Your task to perform on an android device: check android version Image 0: 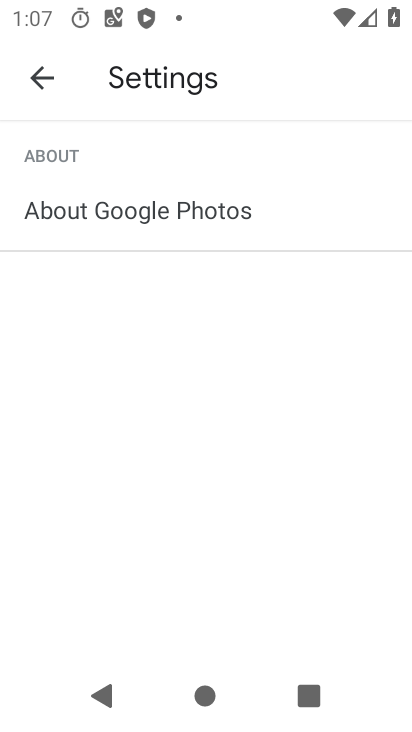
Step 0: press back button
Your task to perform on an android device: check android version Image 1: 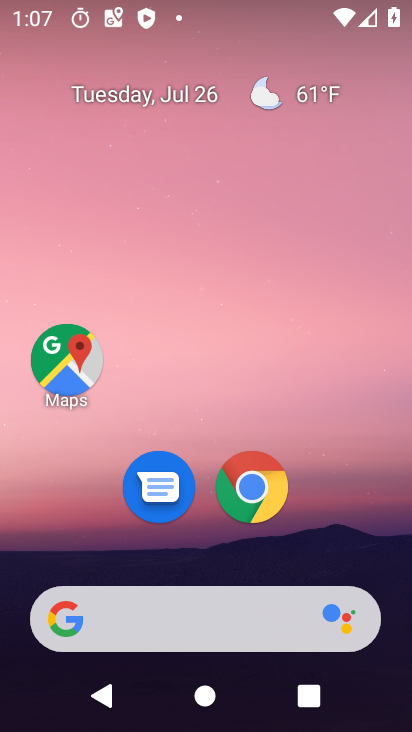
Step 1: drag from (171, 545) to (186, 16)
Your task to perform on an android device: check android version Image 2: 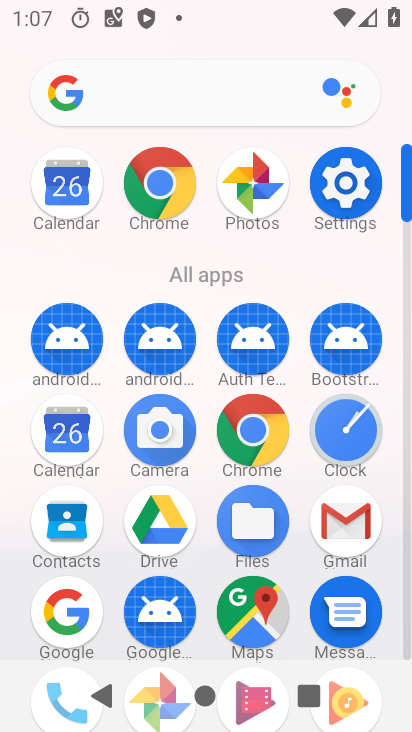
Step 2: click (335, 171)
Your task to perform on an android device: check android version Image 3: 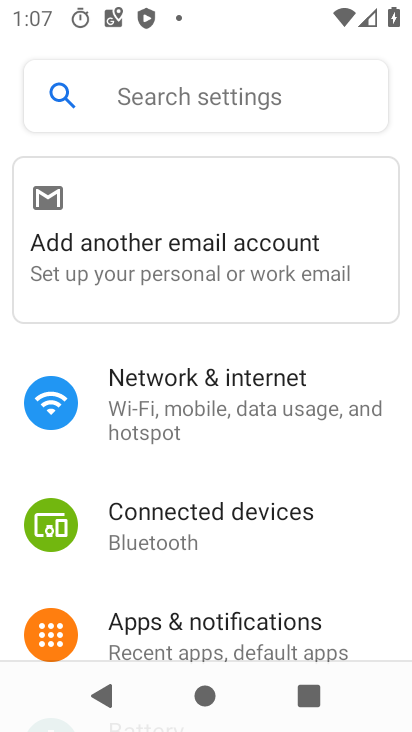
Step 3: drag from (193, 617) to (289, 13)
Your task to perform on an android device: check android version Image 4: 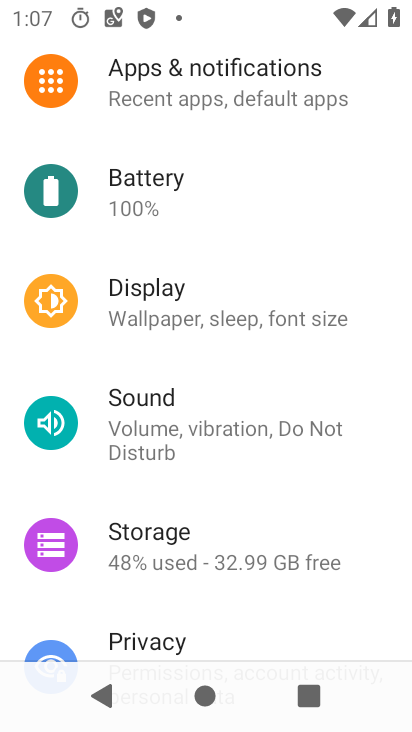
Step 4: drag from (206, 578) to (277, 30)
Your task to perform on an android device: check android version Image 5: 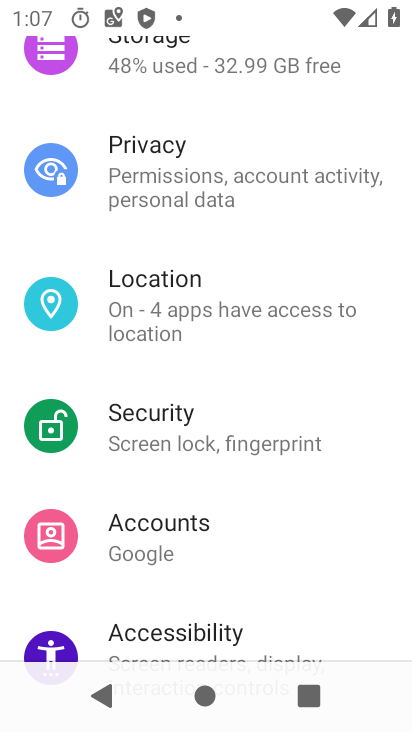
Step 5: drag from (118, 590) to (214, 0)
Your task to perform on an android device: check android version Image 6: 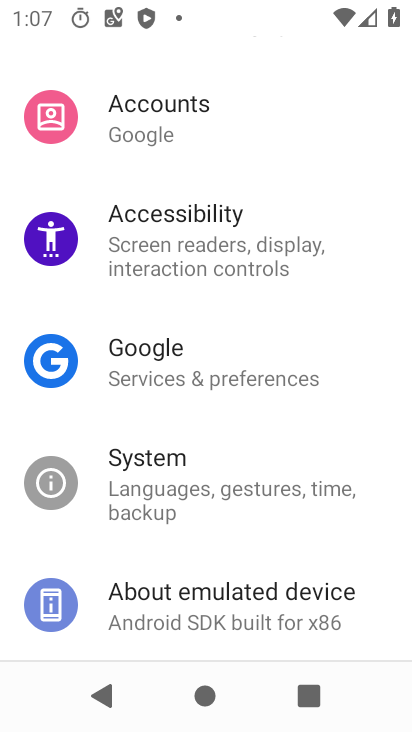
Step 6: click (172, 614)
Your task to perform on an android device: check android version Image 7: 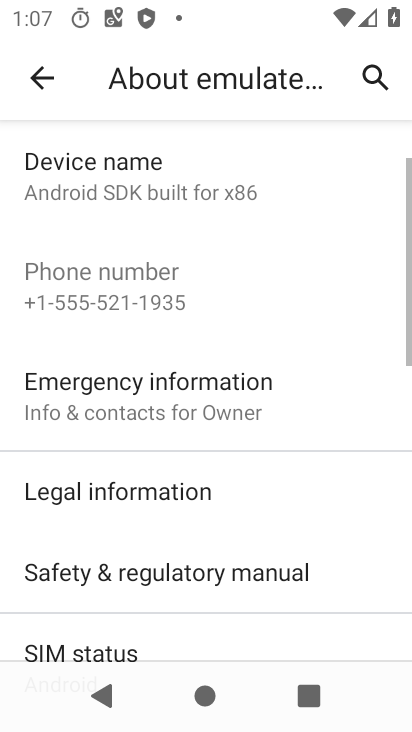
Step 7: drag from (179, 602) to (288, 20)
Your task to perform on an android device: check android version Image 8: 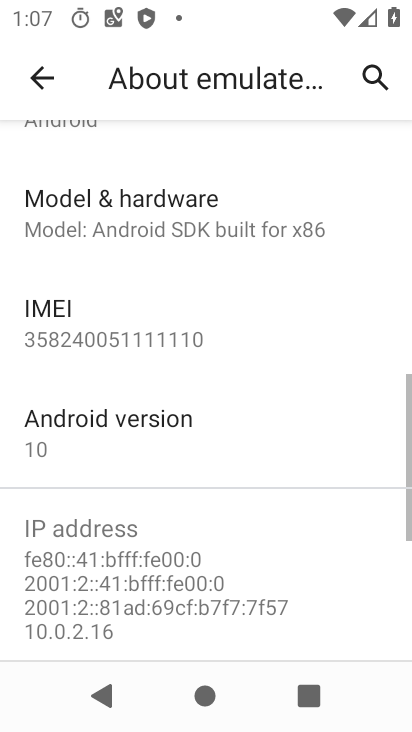
Step 8: click (104, 447)
Your task to perform on an android device: check android version Image 9: 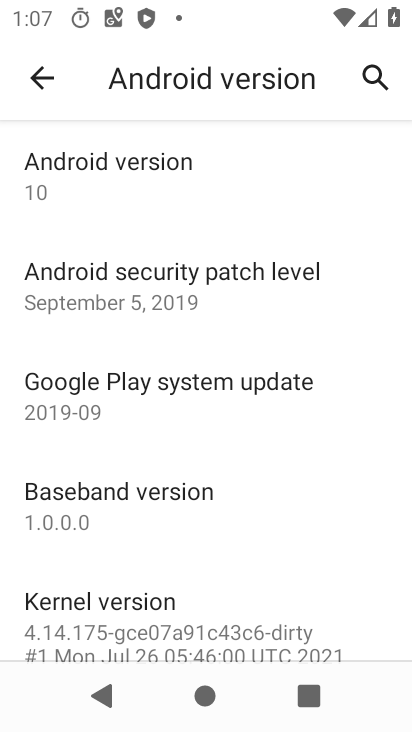
Step 9: task complete